Your task to perform on an android device: What's on my calendar today? Image 0: 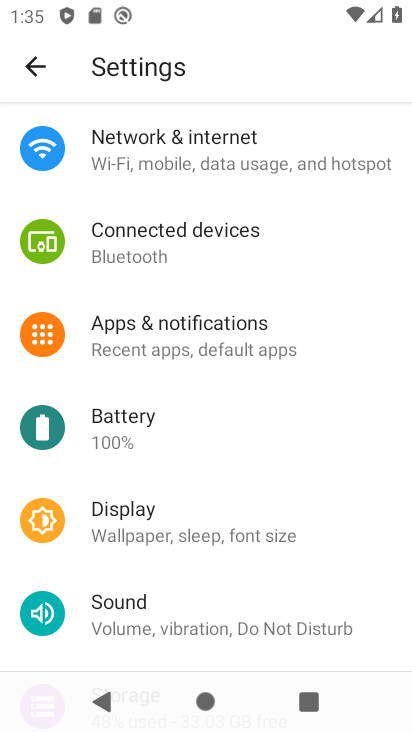
Step 0: press home button
Your task to perform on an android device: What's on my calendar today? Image 1: 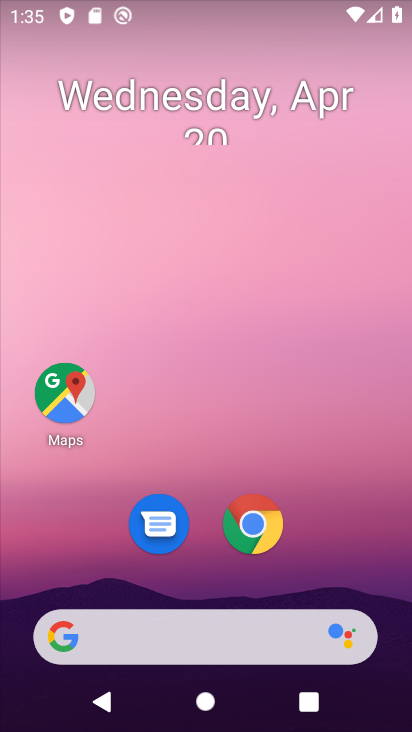
Step 1: drag from (348, 541) to (176, 50)
Your task to perform on an android device: What's on my calendar today? Image 2: 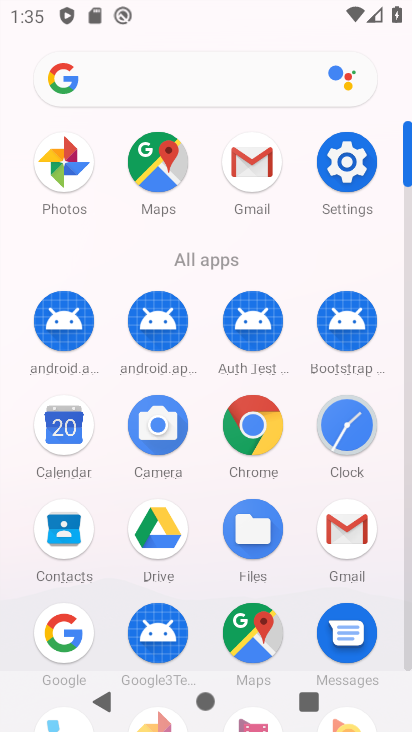
Step 2: click (59, 418)
Your task to perform on an android device: What's on my calendar today? Image 3: 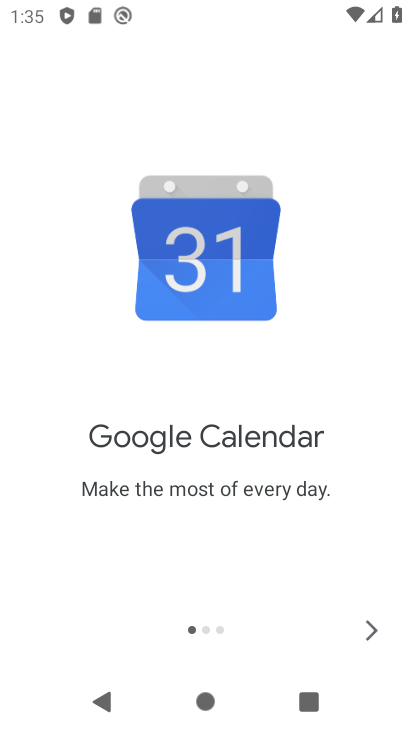
Step 3: click (368, 625)
Your task to perform on an android device: What's on my calendar today? Image 4: 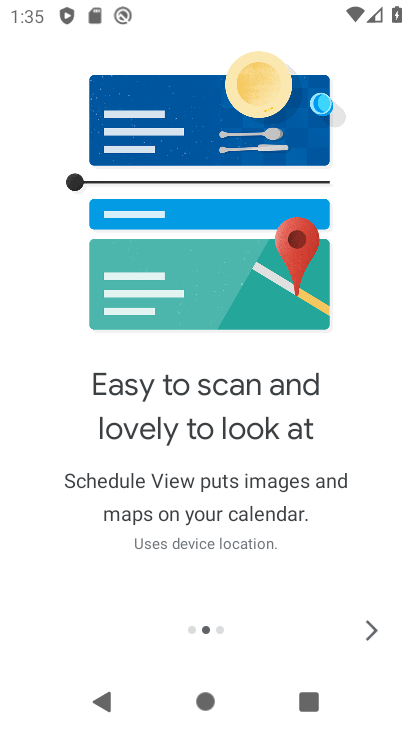
Step 4: click (368, 625)
Your task to perform on an android device: What's on my calendar today? Image 5: 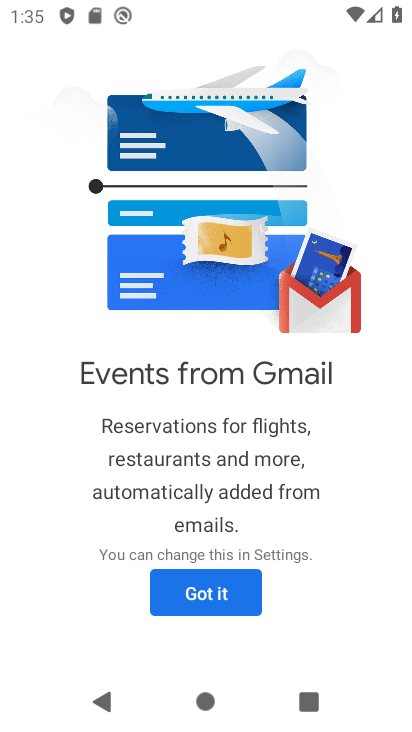
Step 5: click (252, 584)
Your task to perform on an android device: What's on my calendar today? Image 6: 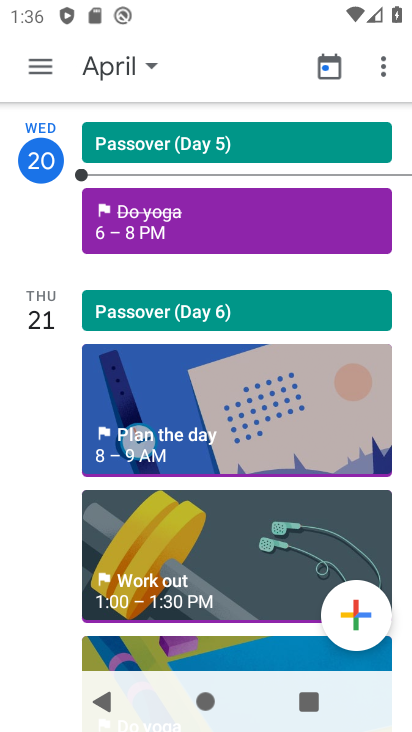
Step 6: click (300, 232)
Your task to perform on an android device: What's on my calendar today? Image 7: 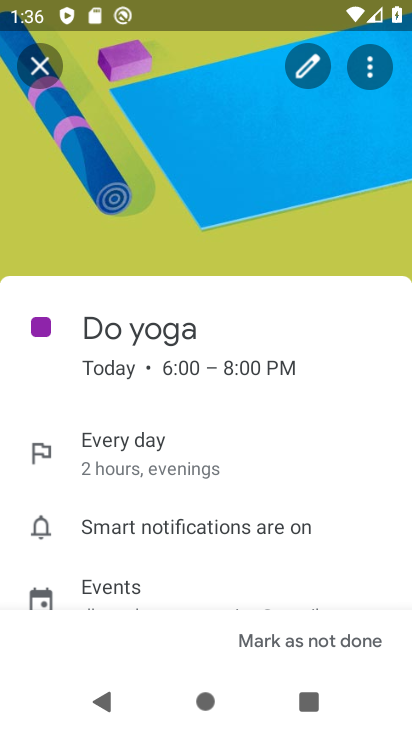
Step 7: task complete